Your task to perform on an android device: set the stopwatch Image 0: 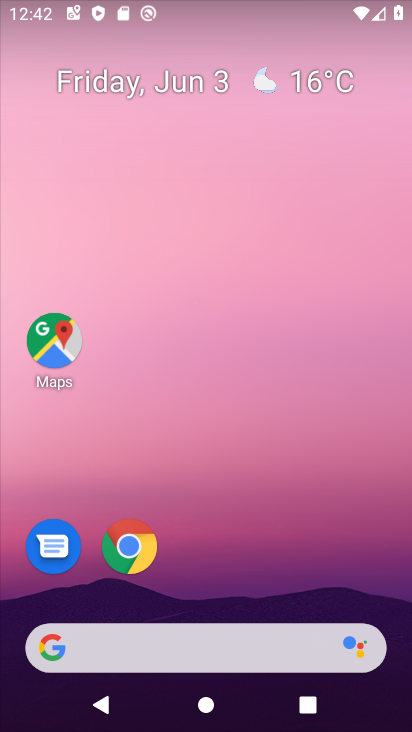
Step 0: drag from (262, 507) to (185, 50)
Your task to perform on an android device: set the stopwatch Image 1: 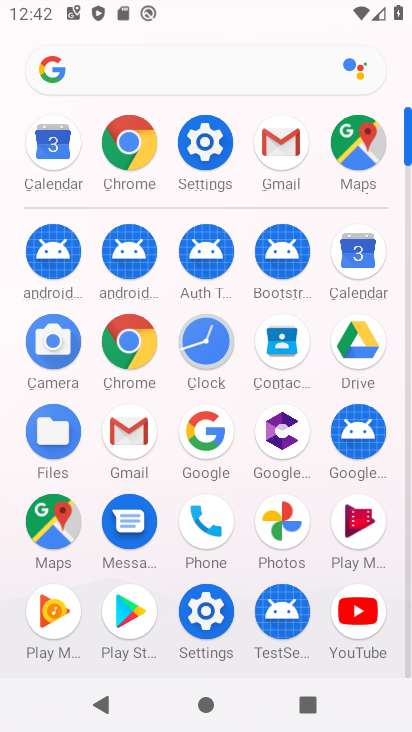
Step 1: click (209, 337)
Your task to perform on an android device: set the stopwatch Image 2: 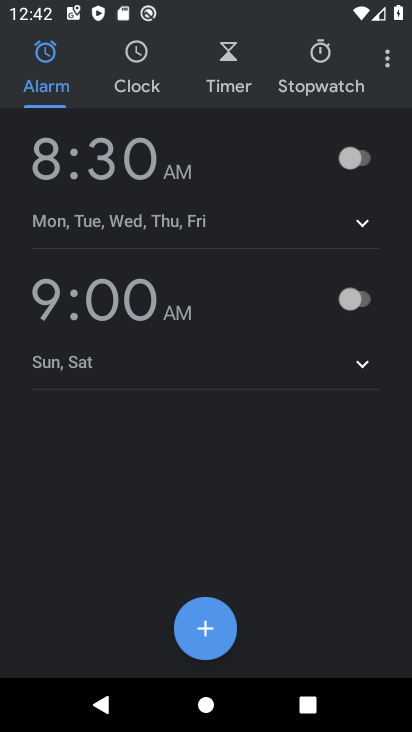
Step 2: click (314, 43)
Your task to perform on an android device: set the stopwatch Image 3: 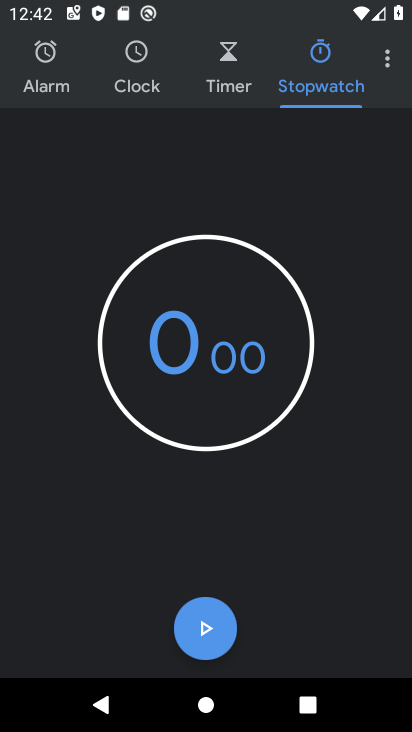
Step 3: task complete